Your task to perform on an android device: turn off priority inbox in the gmail app Image 0: 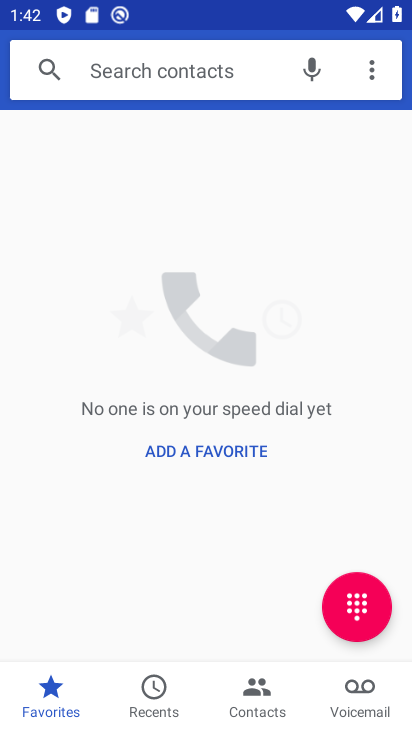
Step 0: press home button
Your task to perform on an android device: turn off priority inbox in the gmail app Image 1: 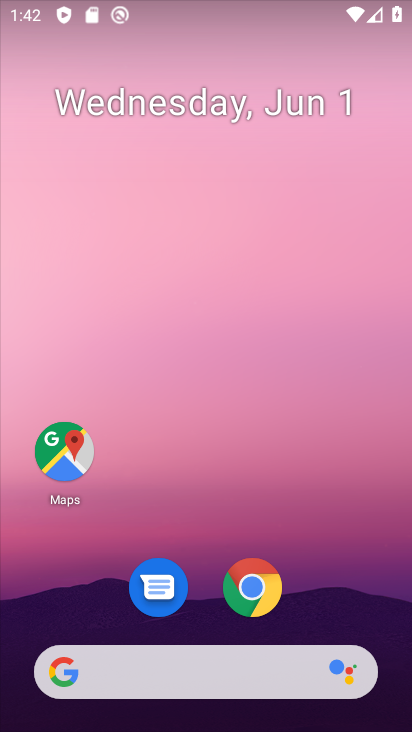
Step 1: drag from (360, 559) to (311, 109)
Your task to perform on an android device: turn off priority inbox in the gmail app Image 2: 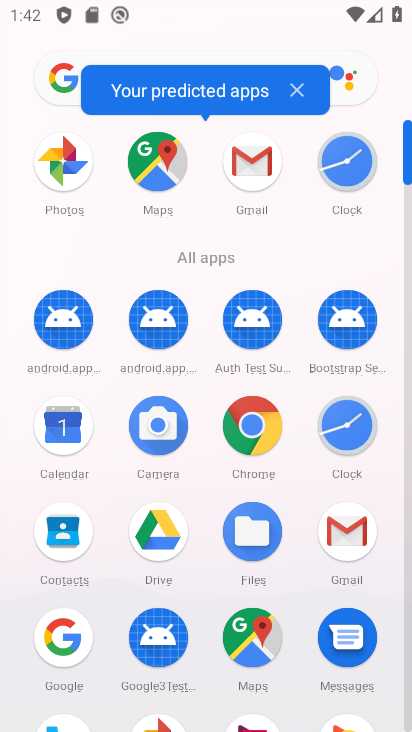
Step 2: drag from (202, 598) to (186, 112)
Your task to perform on an android device: turn off priority inbox in the gmail app Image 3: 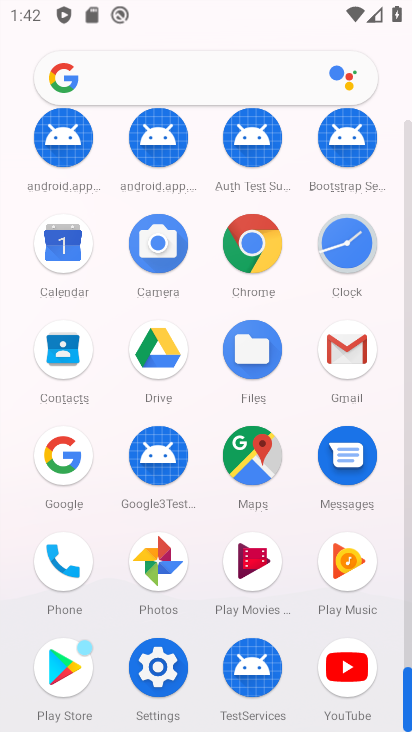
Step 3: drag from (211, 640) to (184, 110)
Your task to perform on an android device: turn off priority inbox in the gmail app Image 4: 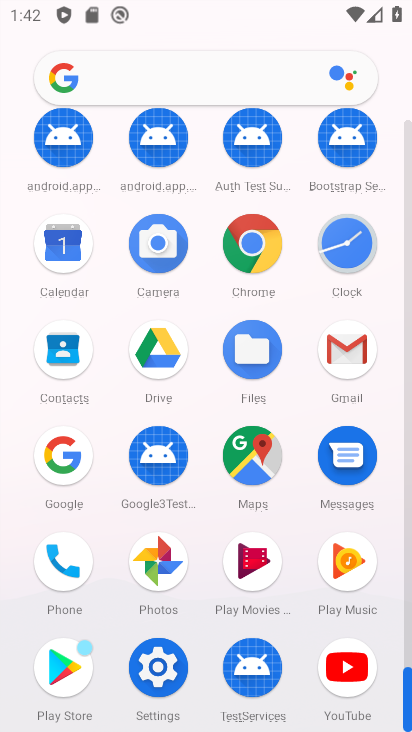
Step 4: click (338, 348)
Your task to perform on an android device: turn off priority inbox in the gmail app Image 5: 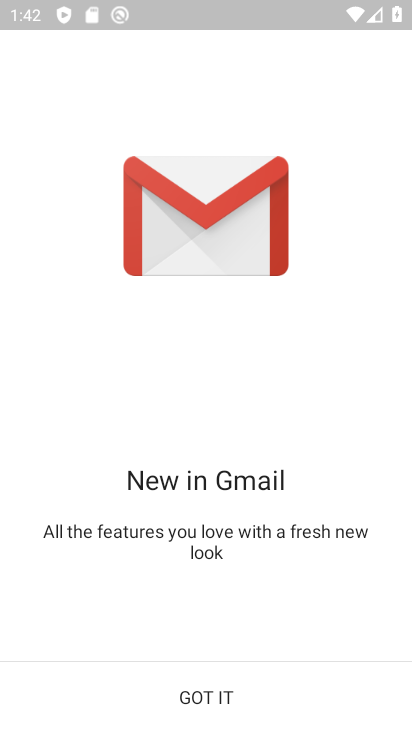
Step 5: click (187, 697)
Your task to perform on an android device: turn off priority inbox in the gmail app Image 6: 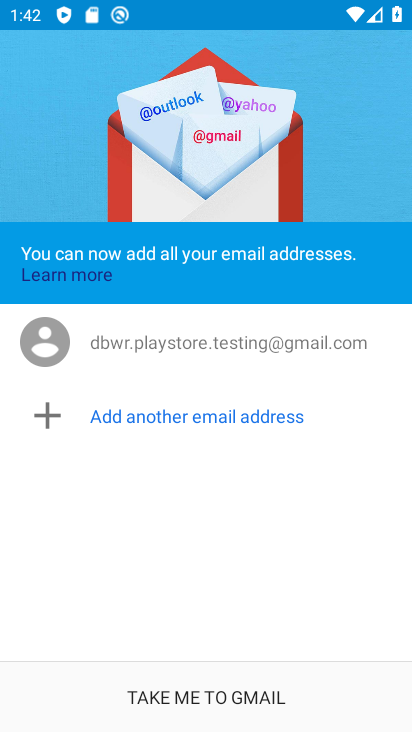
Step 6: click (187, 697)
Your task to perform on an android device: turn off priority inbox in the gmail app Image 7: 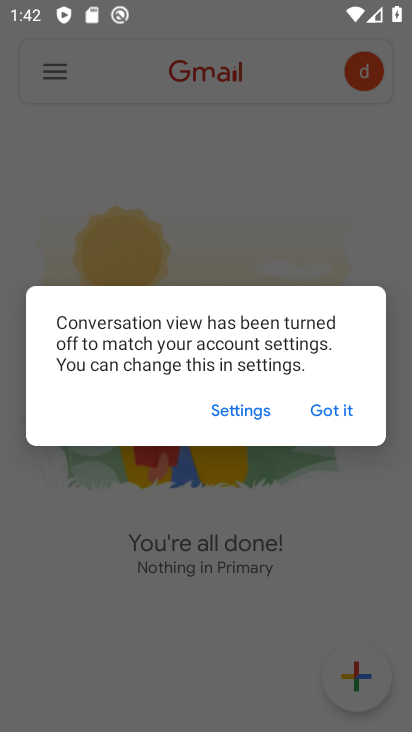
Step 7: click (337, 411)
Your task to perform on an android device: turn off priority inbox in the gmail app Image 8: 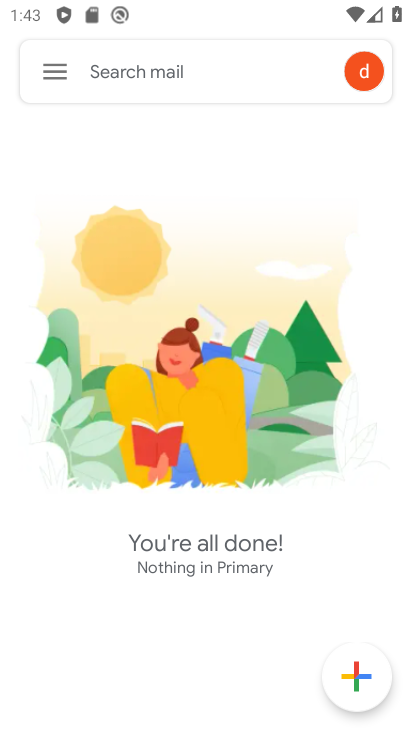
Step 8: click (56, 70)
Your task to perform on an android device: turn off priority inbox in the gmail app Image 9: 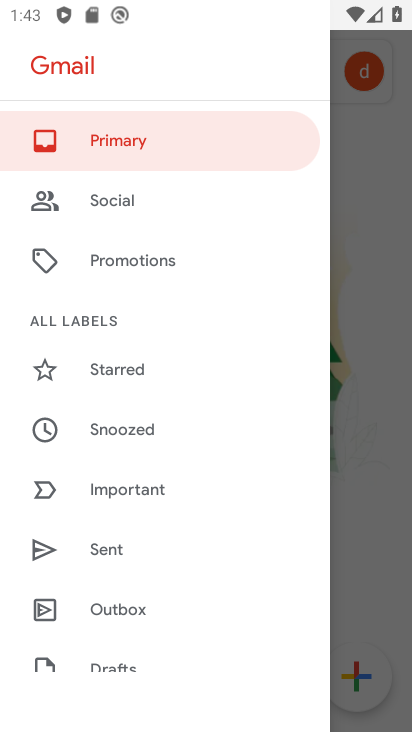
Step 9: drag from (287, 655) to (240, 192)
Your task to perform on an android device: turn off priority inbox in the gmail app Image 10: 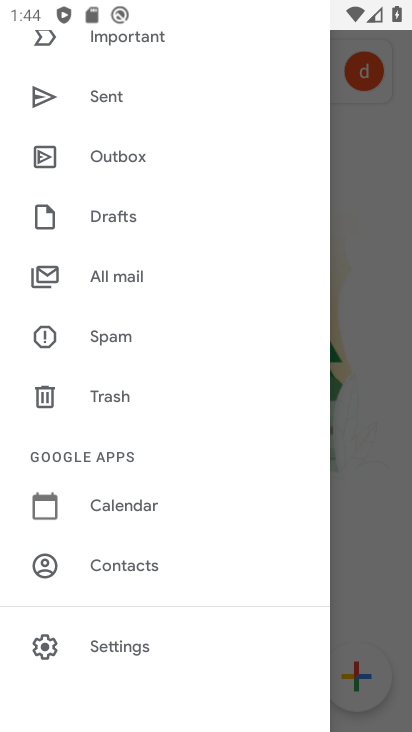
Step 10: click (152, 635)
Your task to perform on an android device: turn off priority inbox in the gmail app Image 11: 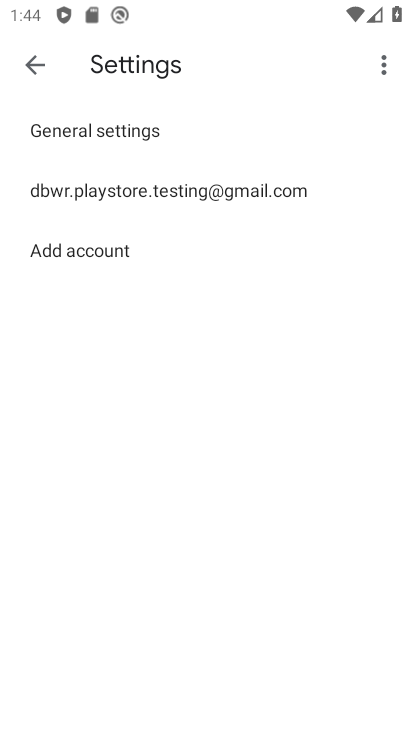
Step 11: click (123, 190)
Your task to perform on an android device: turn off priority inbox in the gmail app Image 12: 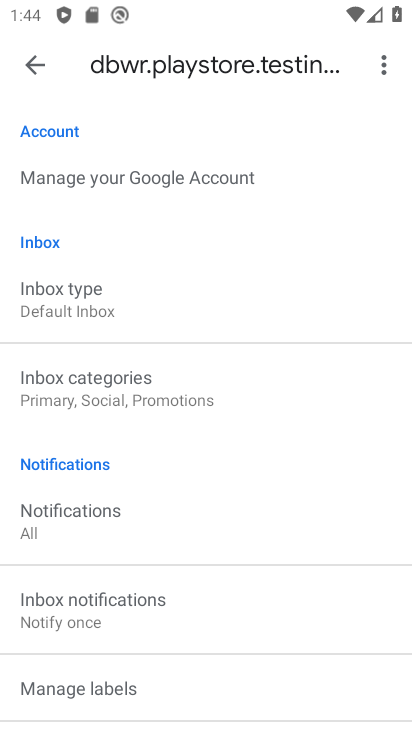
Step 12: click (80, 299)
Your task to perform on an android device: turn off priority inbox in the gmail app Image 13: 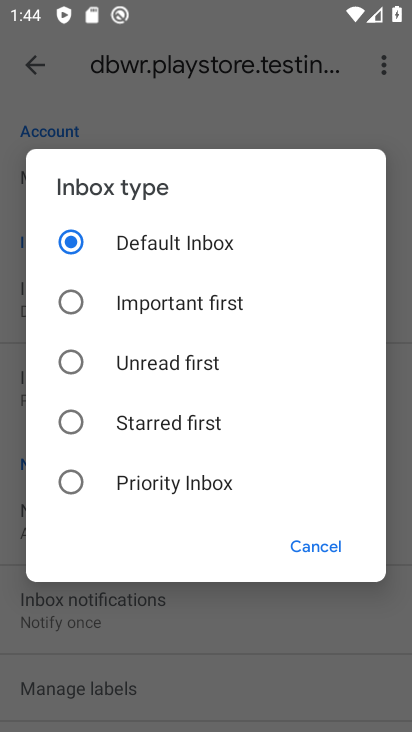
Step 13: task complete